Your task to perform on an android device: set the stopwatch Image 0: 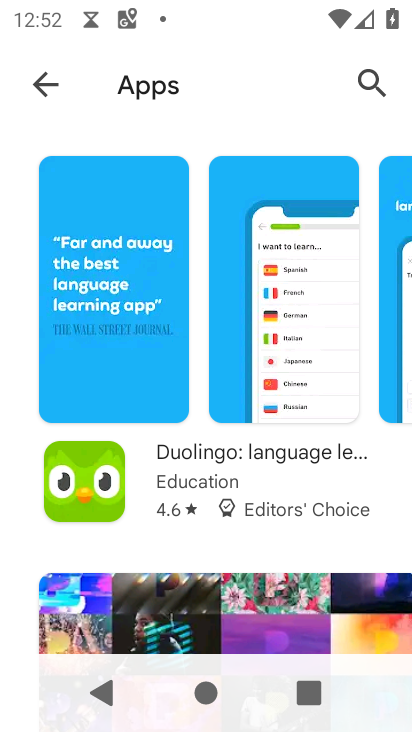
Step 0: press home button
Your task to perform on an android device: set the stopwatch Image 1: 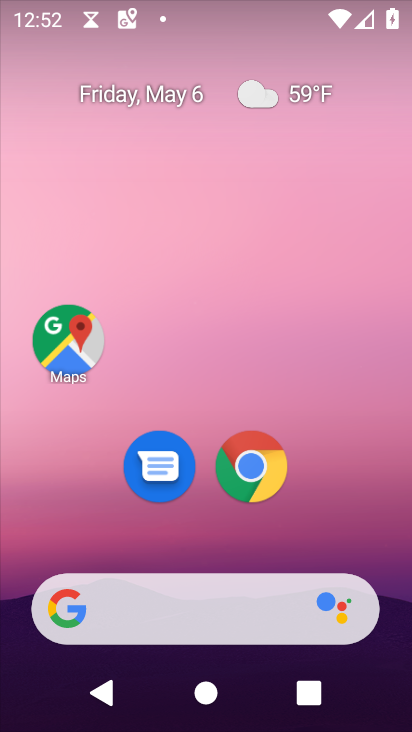
Step 1: drag from (333, 530) to (268, 152)
Your task to perform on an android device: set the stopwatch Image 2: 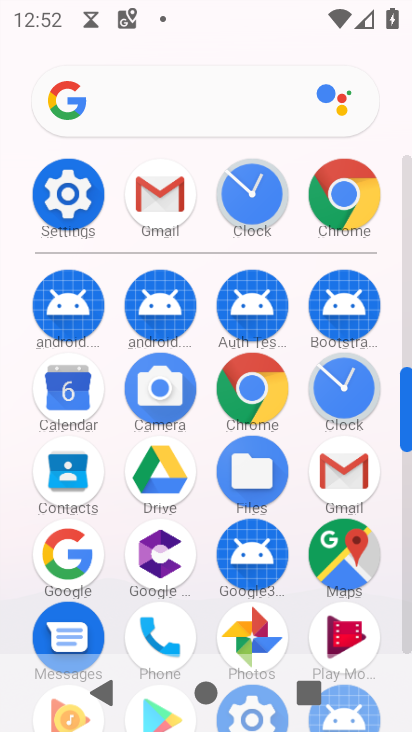
Step 2: click (241, 189)
Your task to perform on an android device: set the stopwatch Image 3: 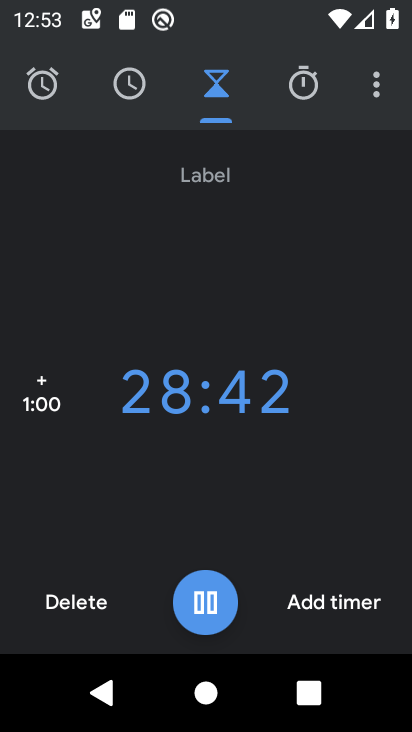
Step 3: click (312, 84)
Your task to perform on an android device: set the stopwatch Image 4: 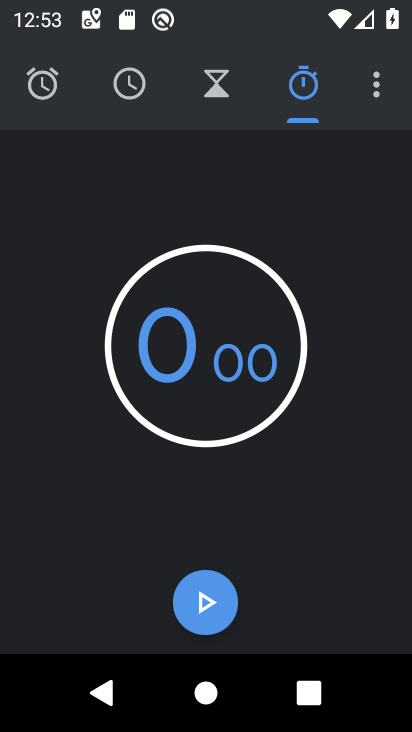
Step 4: click (218, 586)
Your task to perform on an android device: set the stopwatch Image 5: 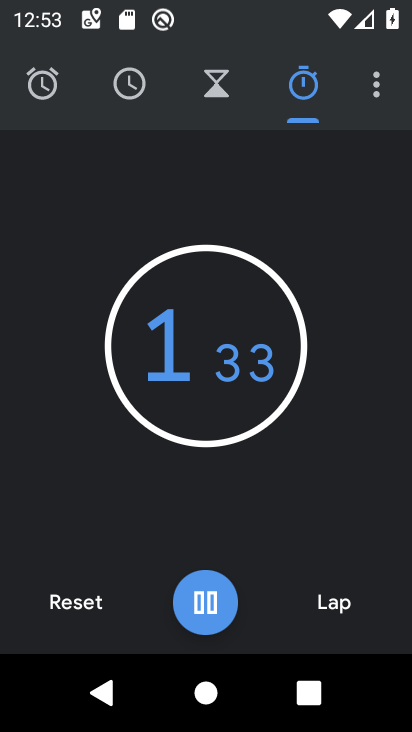
Step 5: task complete